Your task to perform on an android device: When is my next appointment? Image 0: 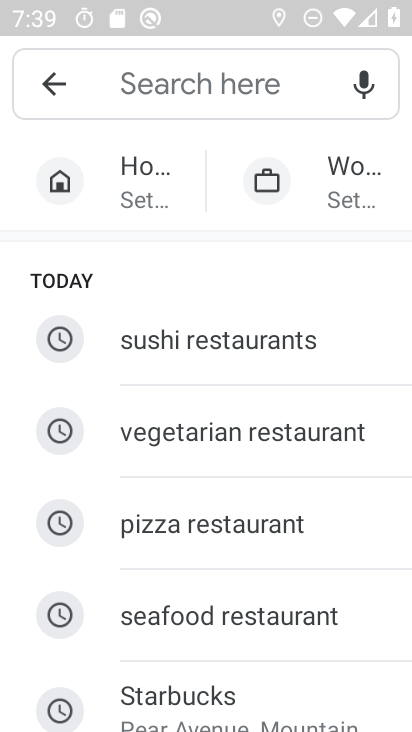
Step 0: press home button
Your task to perform on an android device: When is my next appointment? Image 1: 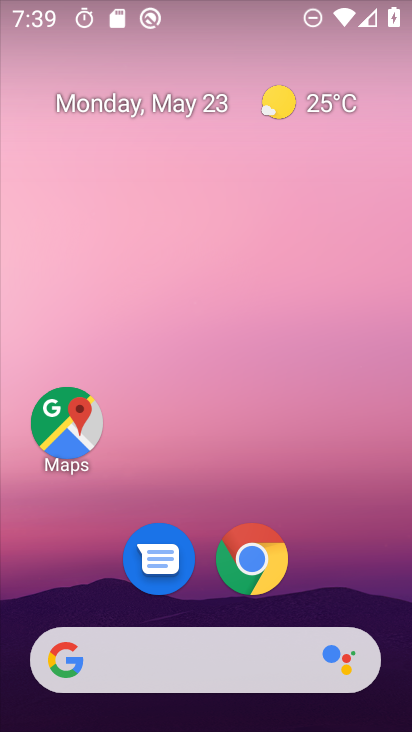
Step 1: drag from (393, 668) to (341, 32)
Your task to perform on an android device: When is my next appointment? Image 2: 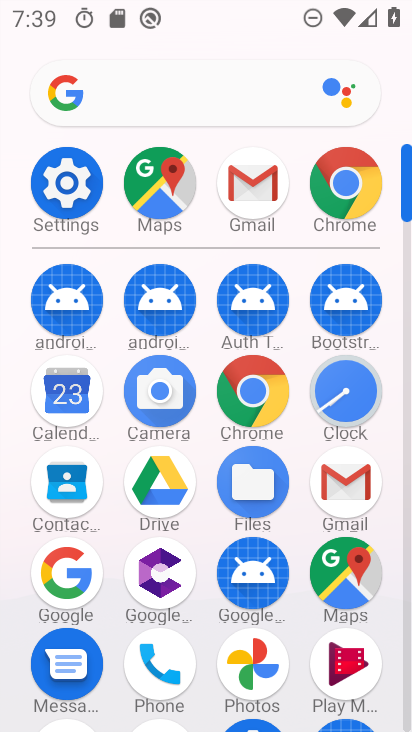
Step 2: click (67, 397)
Your task to perform on an android device: When is my next appointment? Image 3: 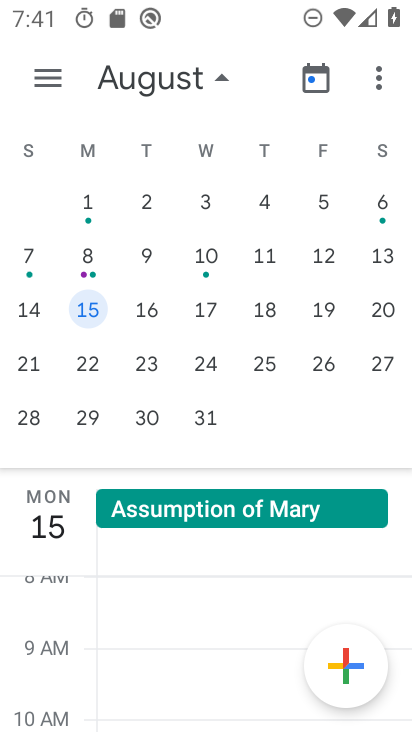
Step 3: task complete